Your task to perform on an android device: Is it going to rain tomorrow? Image 0: 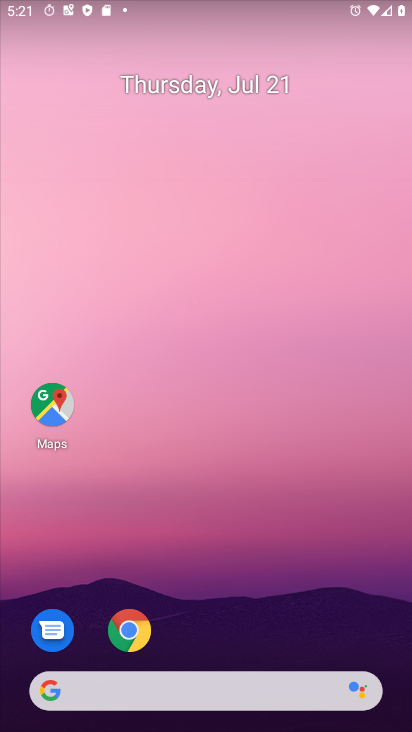
Step 0: drag from (201, 688) to (244, 161)
Your task to perform on an android device: Is it going to rain tomorrow? Image 1: 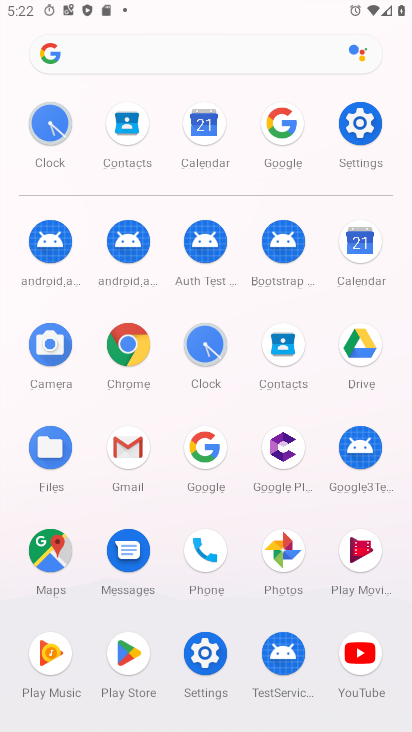
Step 1: click (279, 121)
Your task to perform on an android device: Is it going to rain tomorrow? Image 2: 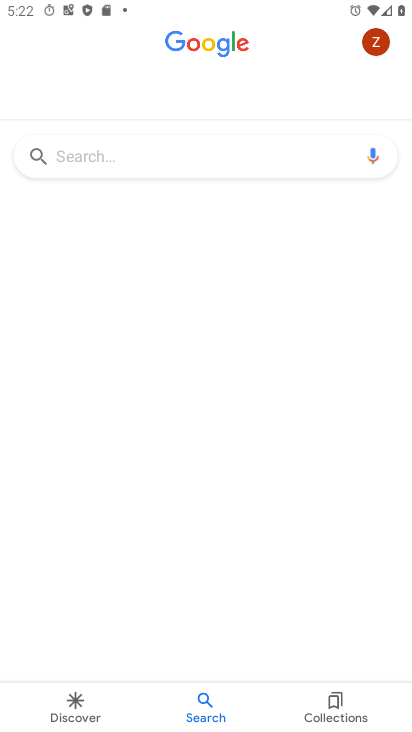
Step 2: click (244, 147)
Your task to perform on an android device: Is it going to rain tomorrow? Image 3: 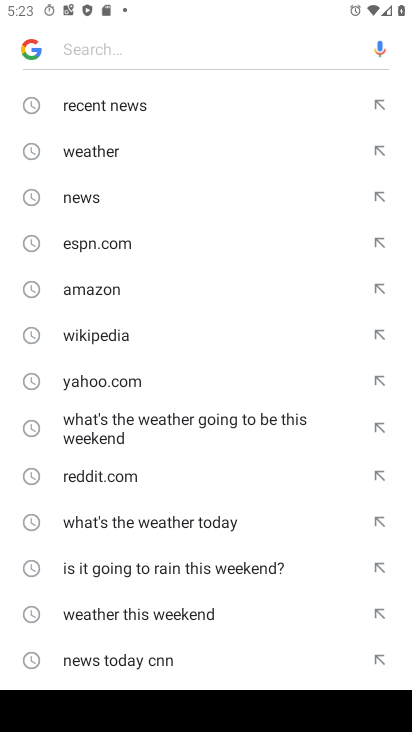
Step 3: type "Is it going to rain tomorrow?"
Your task to perform on an android device: Is it going to rain tomorrow? Image 4: 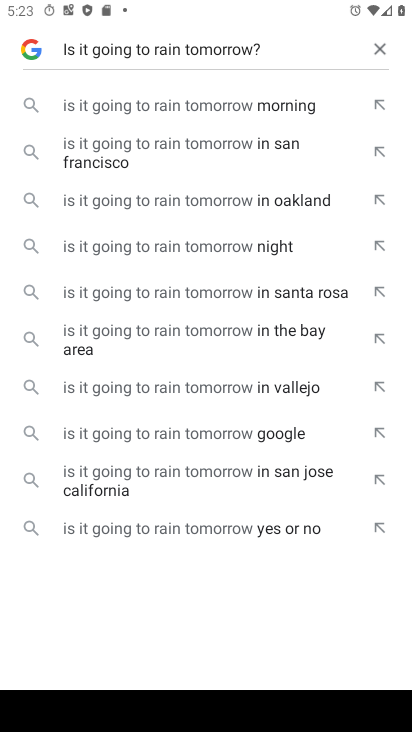
Step 4: click (204, 147)
Your task to perform on an android device: Is it going to rain tomorrow? Image 5: 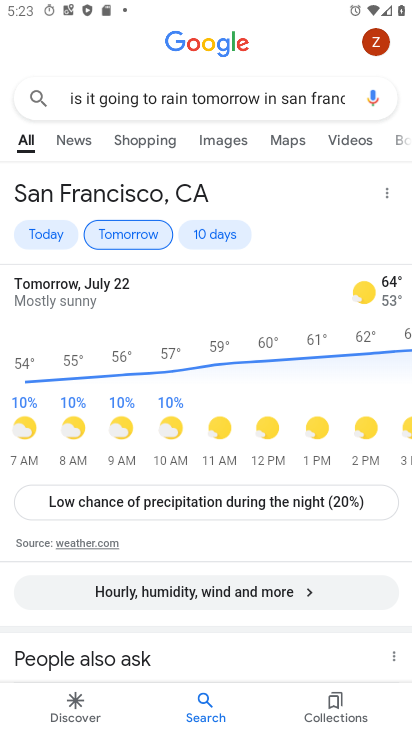
Step 5: task complete